Your task to perform on an android device: open a bookmark in the chrome app Image 0: 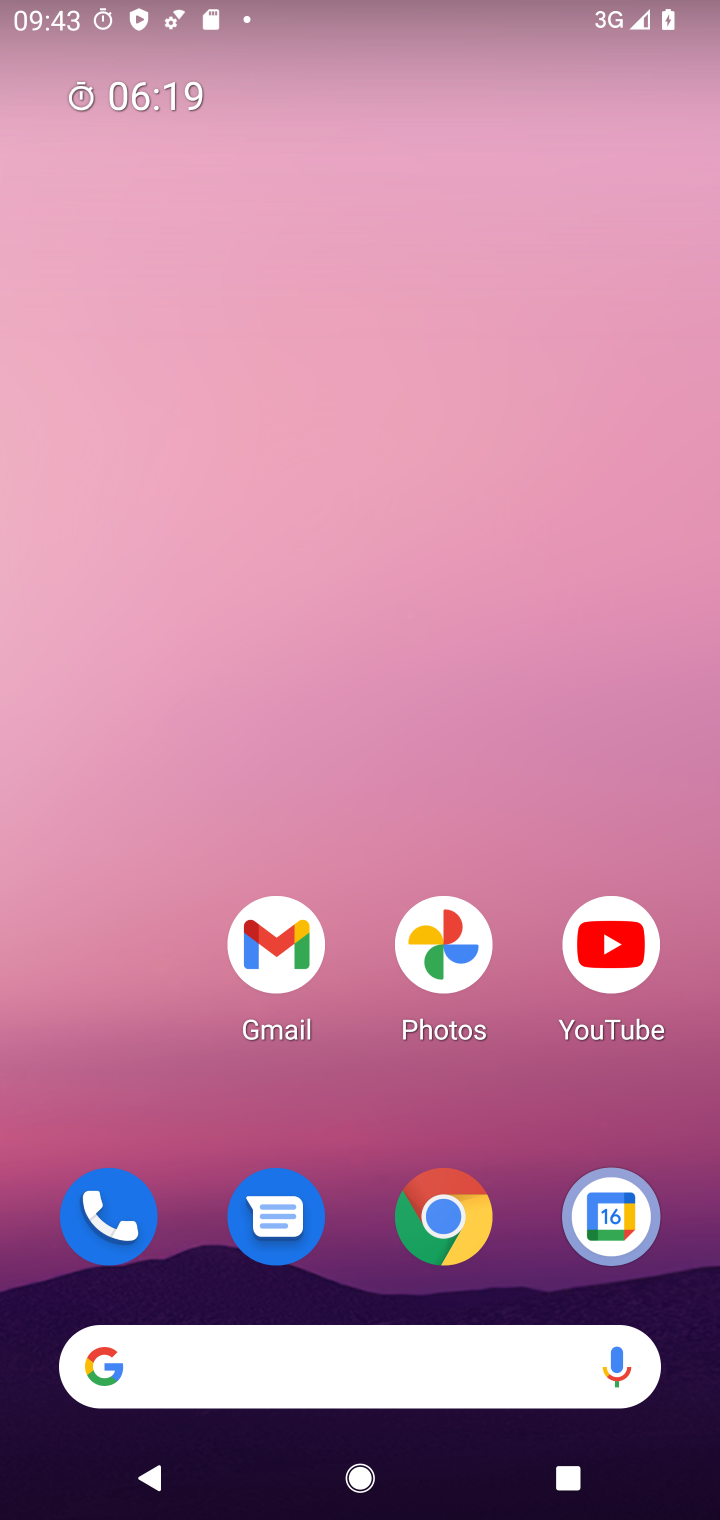
Step 0: click (459, 1229)
Your task to perform on an android device: open a bookmark in the chrome app Image 1: 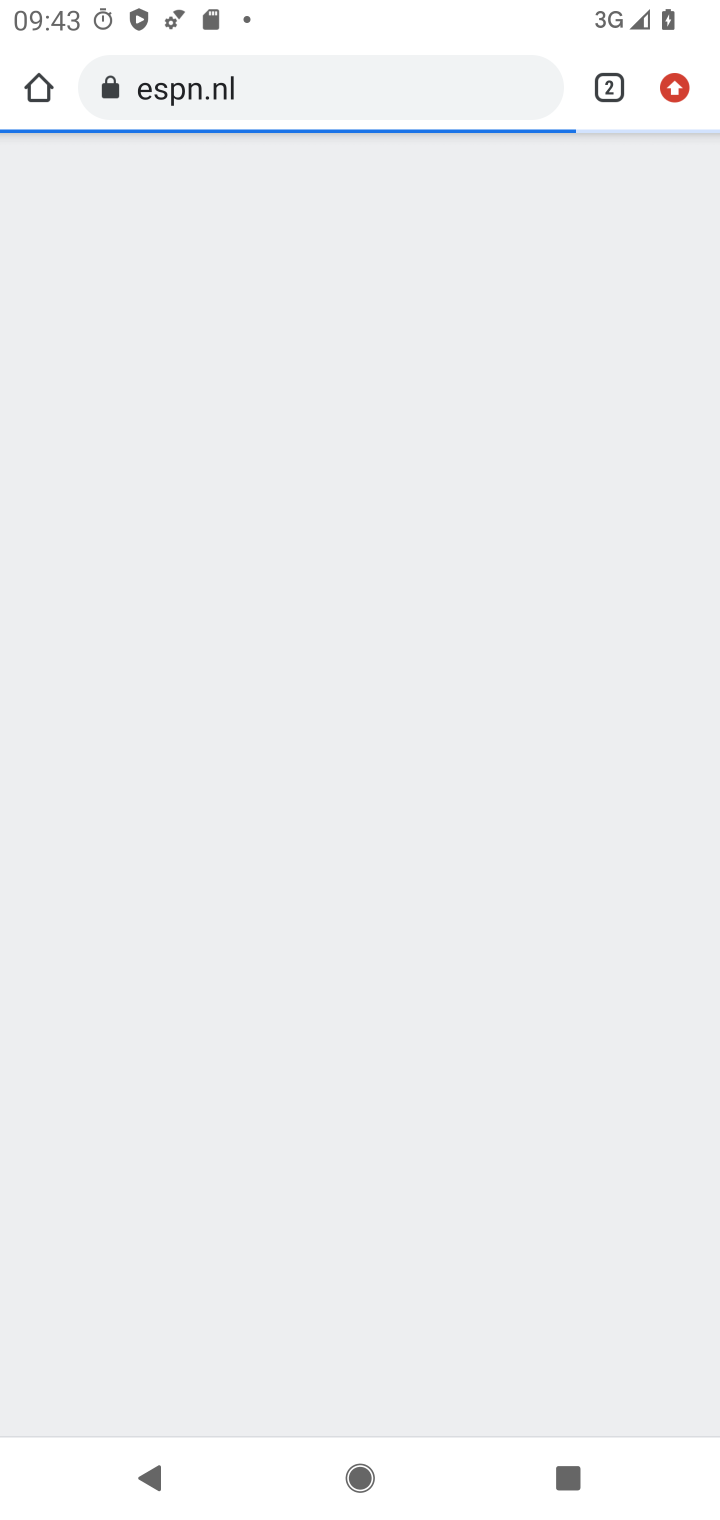
Step 1: drag from (677, 88) to (417, 616)
Your task to perform on an android device: open a bookmark in the chrome app Image 2: 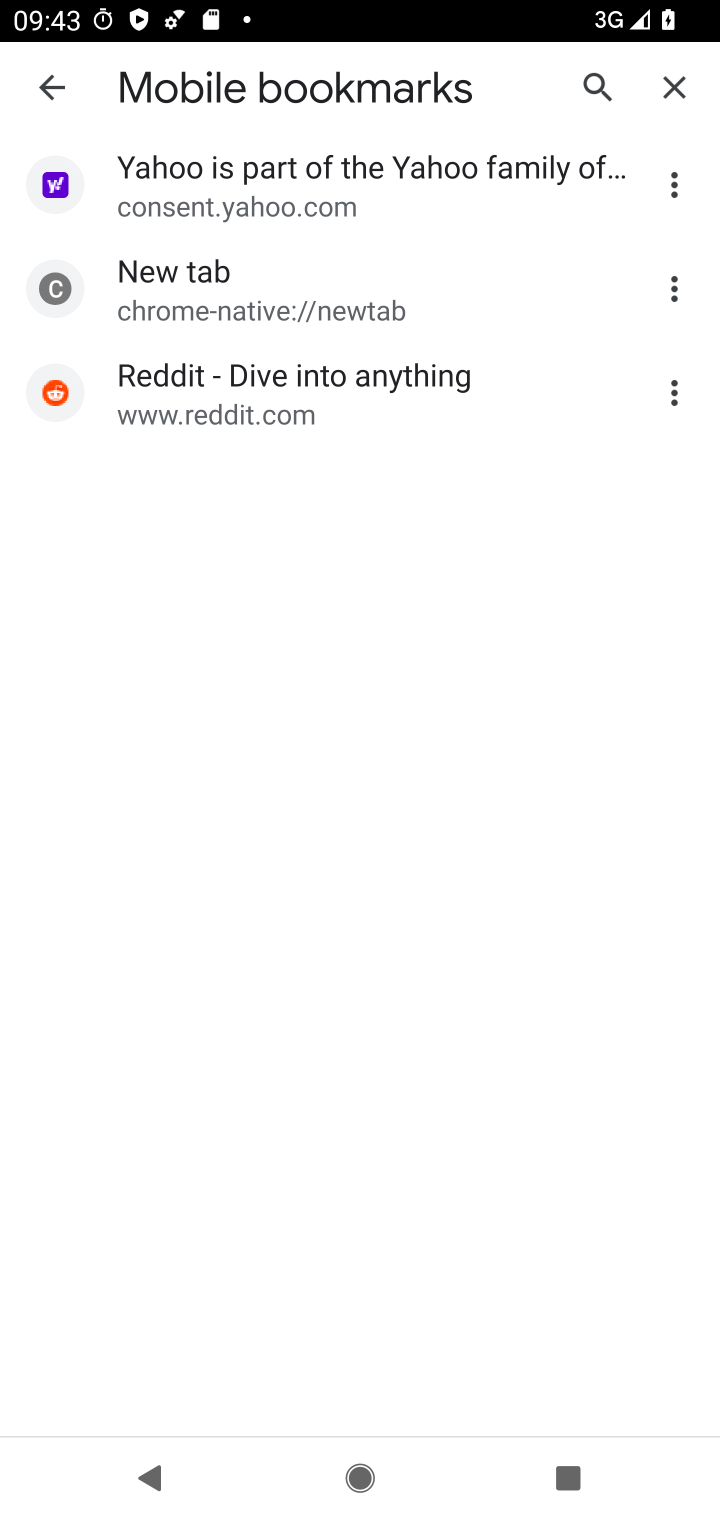
Step 2: click (215, 389)
Your task to perform on an android device: open a bookmark in the chrome app Image 3: 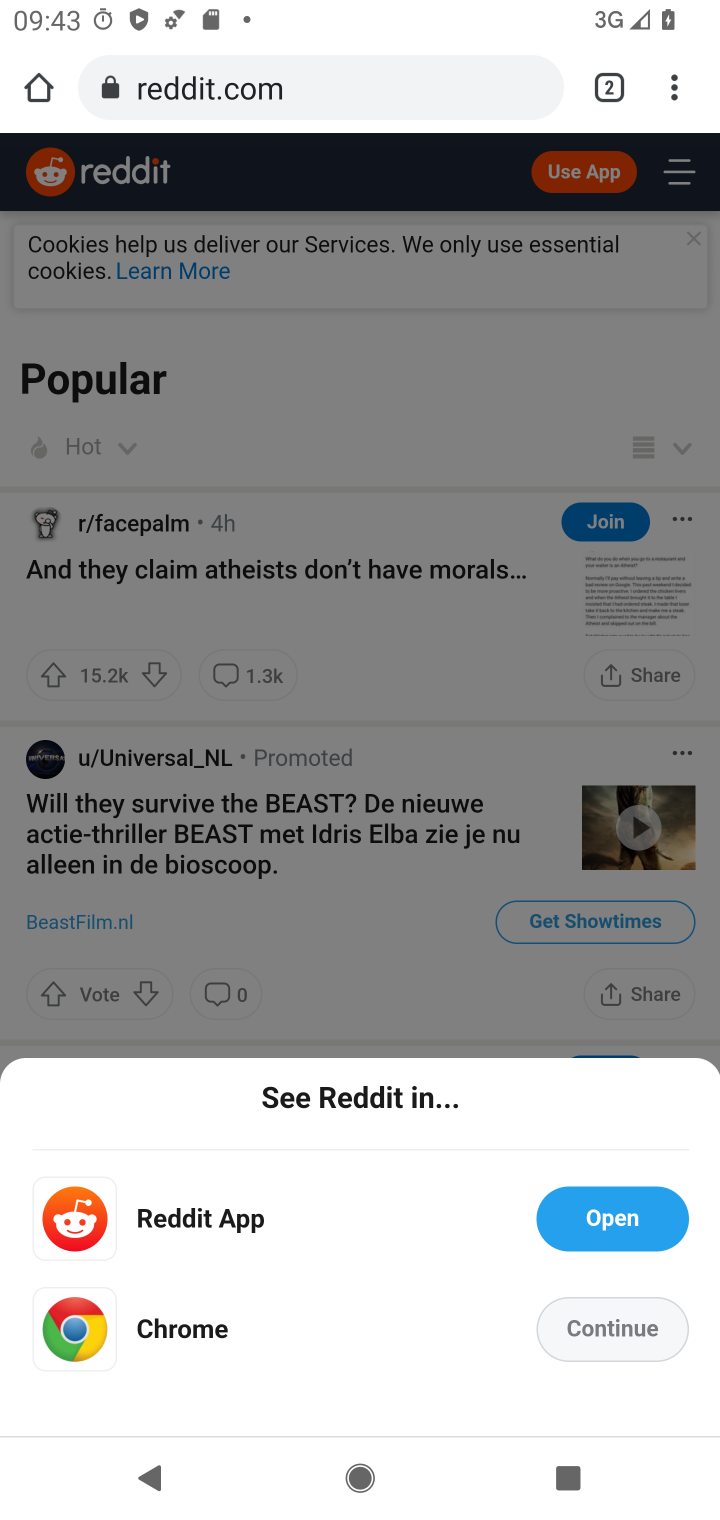
Step 3: task complete